Your task to perform on an android device: Open sound settings Image 0: 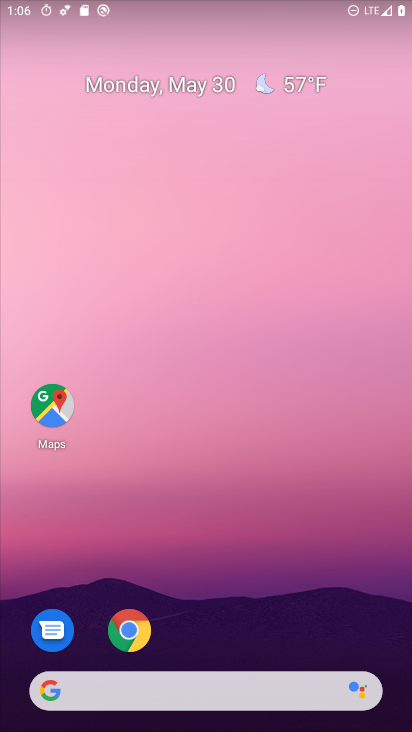
Step 0: drag from (288, 701) to (264, 140)
Your task to perform on an android device: Open sound settings Image 1: 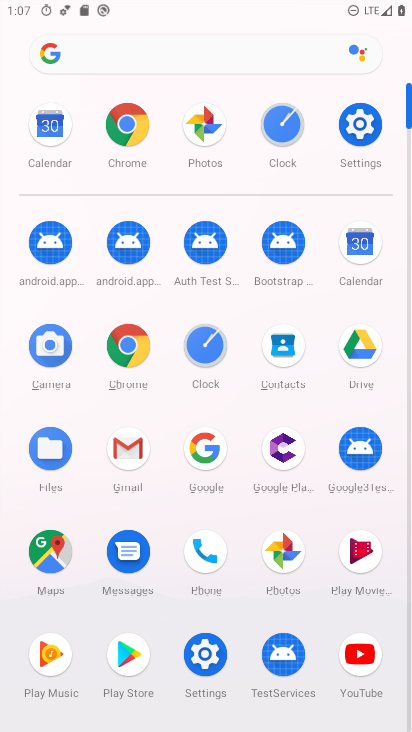
Step 1: click (213, 651)
Your task to perform on an android device: Open sound settings Image 2: 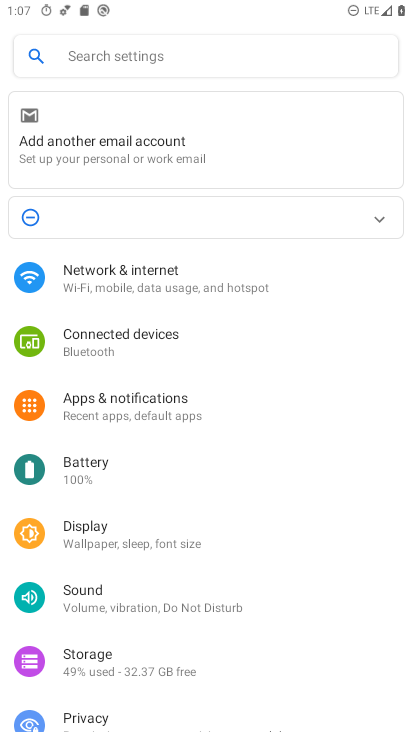
Step 2: click (133, 53)
Your task to perform on an android device: Open sound settings Image 3: 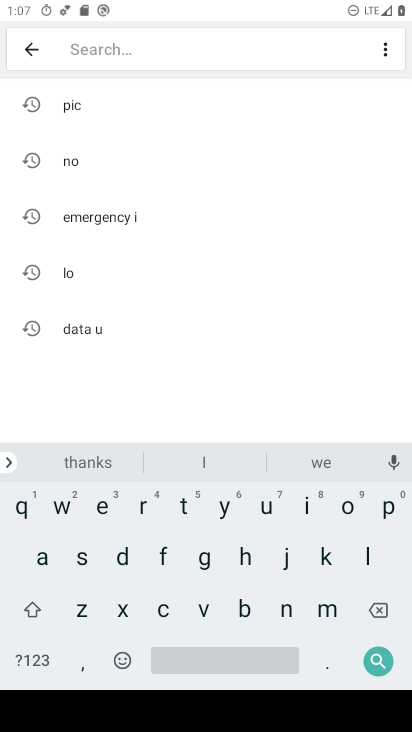
Step 3: click (74, 553)
Your task to perform on an android device: Open sound settings Image 4: 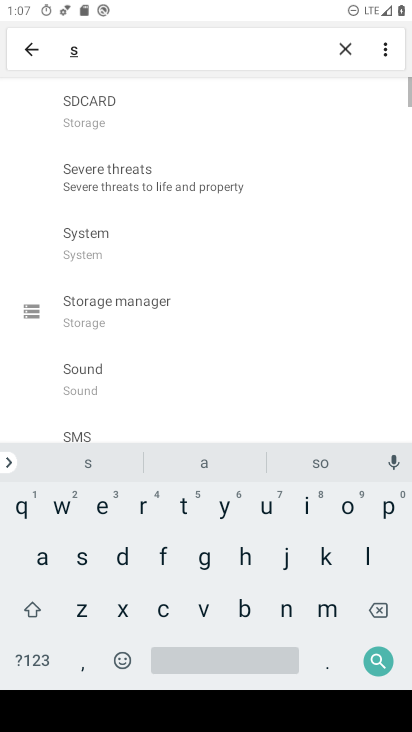
Step 4: click (352, 500)
Your task to perform on an android device: Open sound settings Image 5: 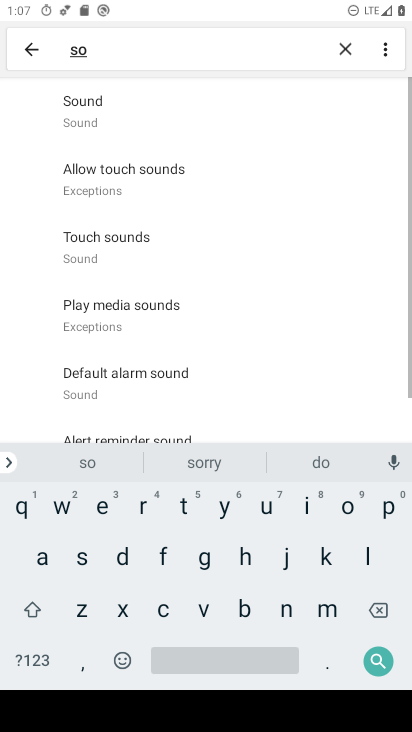
Step 5: click (260, 506)
Your task to perform on an android device: Open sound settings Image 6: 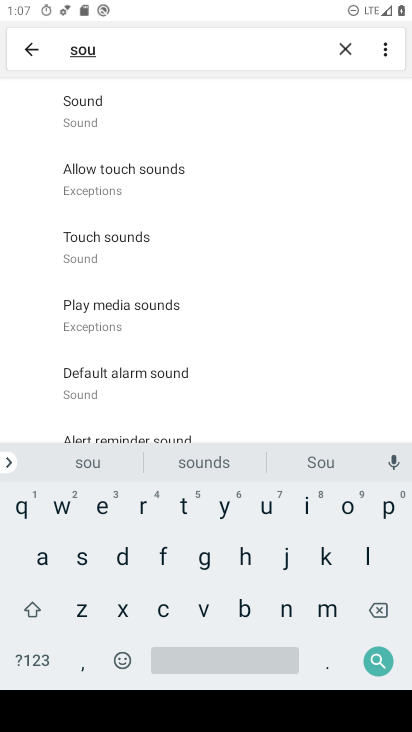
Step 6: click (90, 108)
Your task to perform on an android device: Open sound settings Image 7: 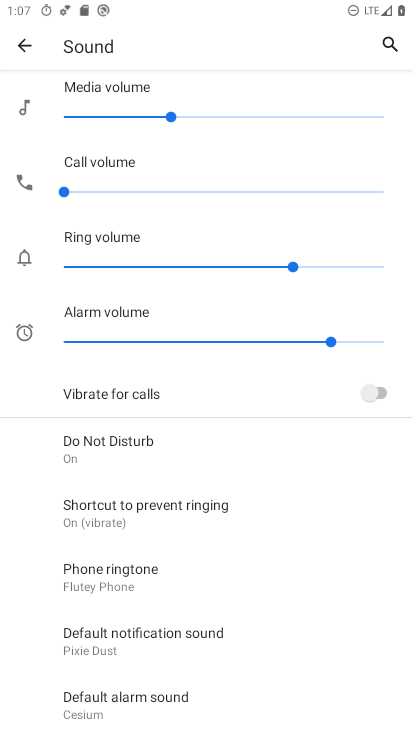
Step 7: task complete